Your task to perform on an android device: Search for Italian restaurants on Maps Image 0: 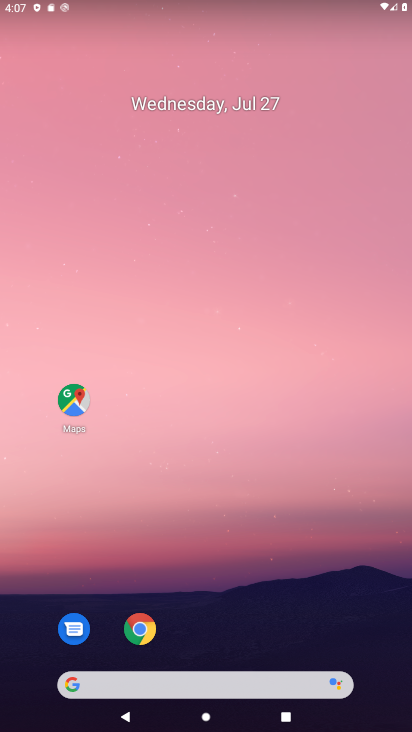
Step 0: drag from (236, 653) to (274, 0)
Your task to perform on an android device: Search for Italian restaurants on Maps Image 1: 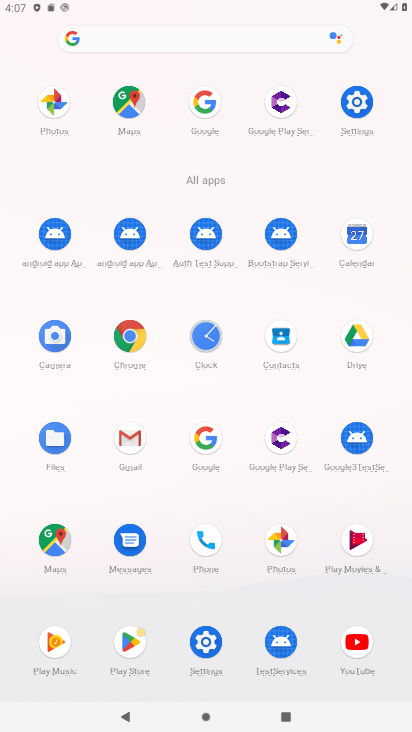
Step 1: click (49, 532)
Your task to perform on an android device: Search for Italian restaurants on Maps Image 2: 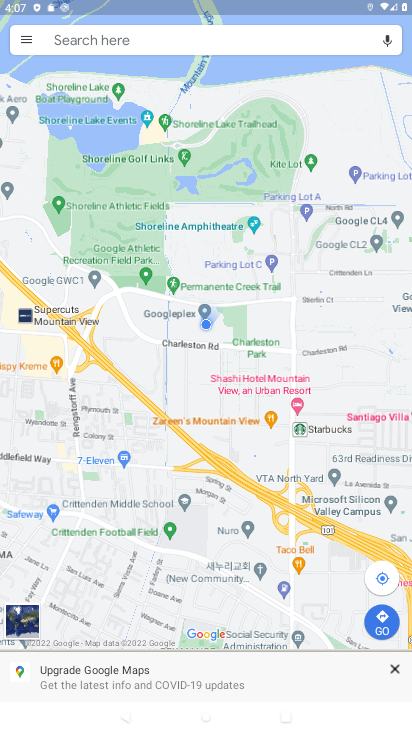
Step 2: click (214, 44)
Your task to perform on an android device: Search for Italian restaurants on Maps Image 3: 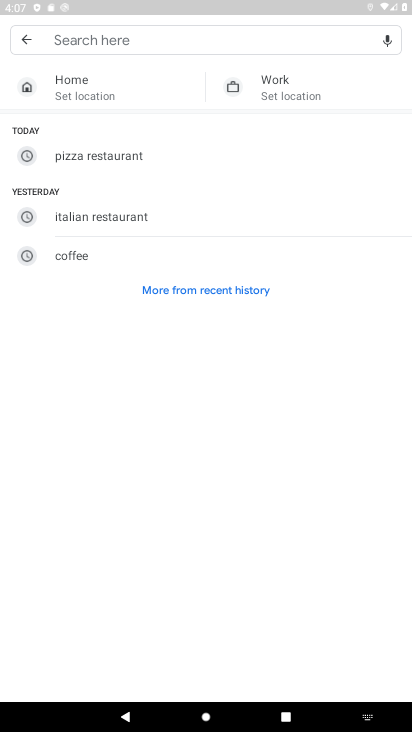
Step 3: click (130, 204)
Your task to perform on an android device: Search for Italian restaurants on Maps Image 4: 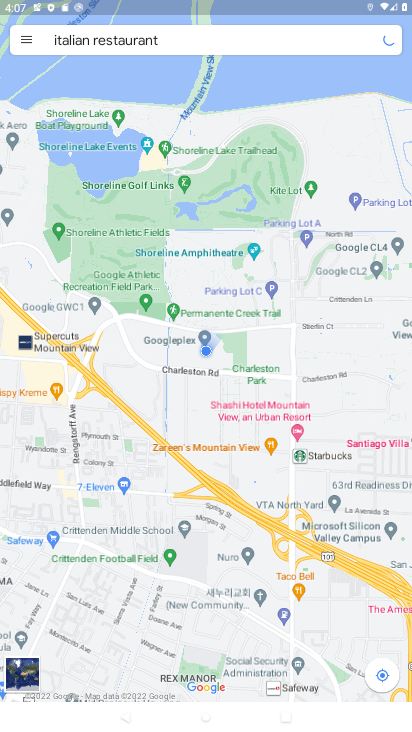
Step 4: task complete